Your task to perform on an android device: Check the weather Image 0: 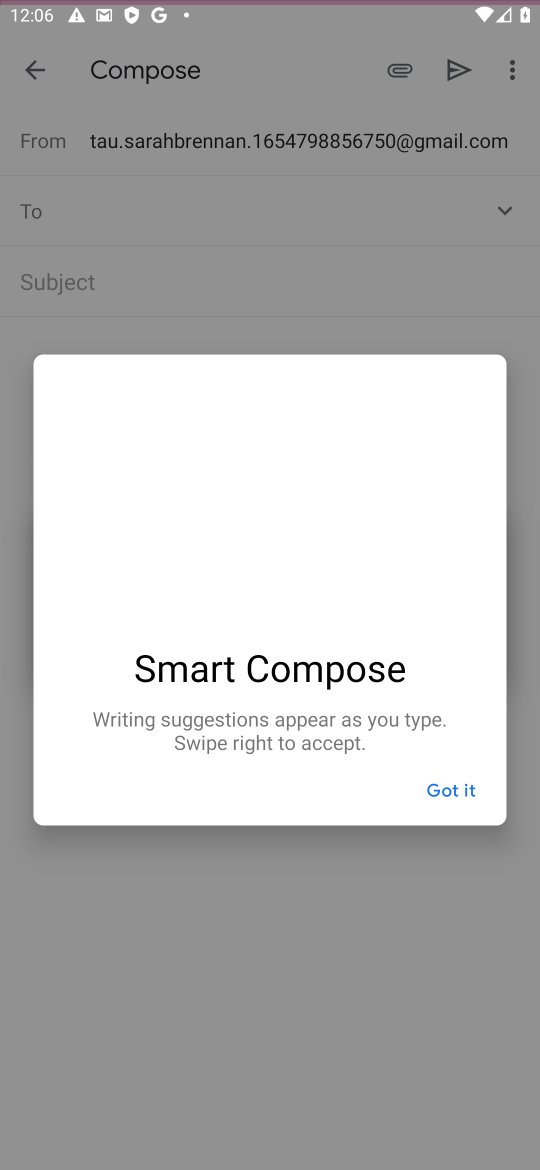
Step 0: press home button
Your task to perform on an android device: Check the weather Image 1: 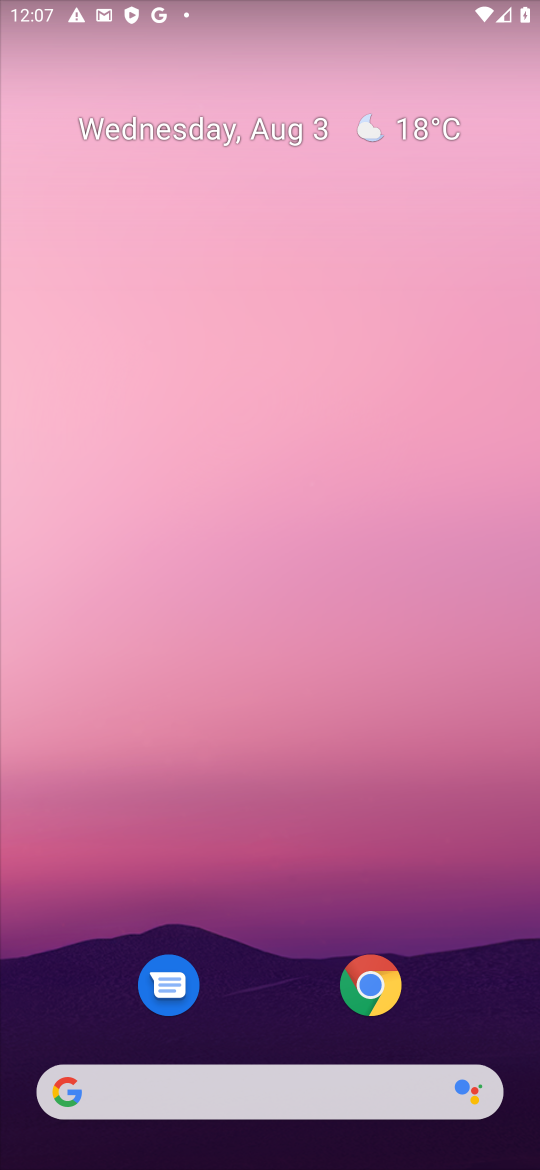
Step 1: drag from (305, 1030) to (288, 239)
Your task to perform on an android device: Check the weather Image 2: 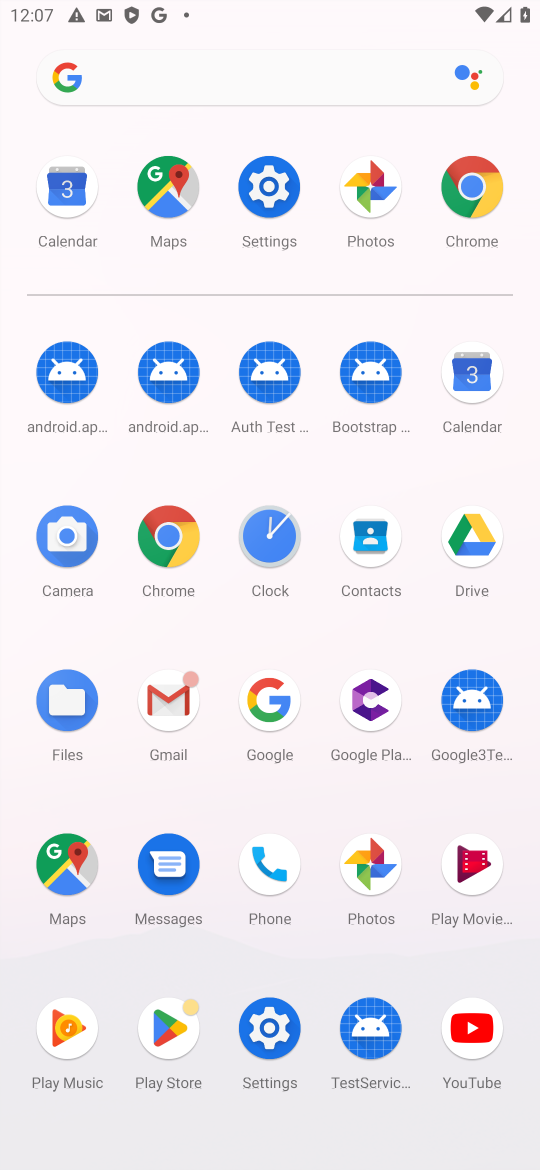
Step 2: click (204, 89)
Your task to perform on an android device: Check the weather Image 3: 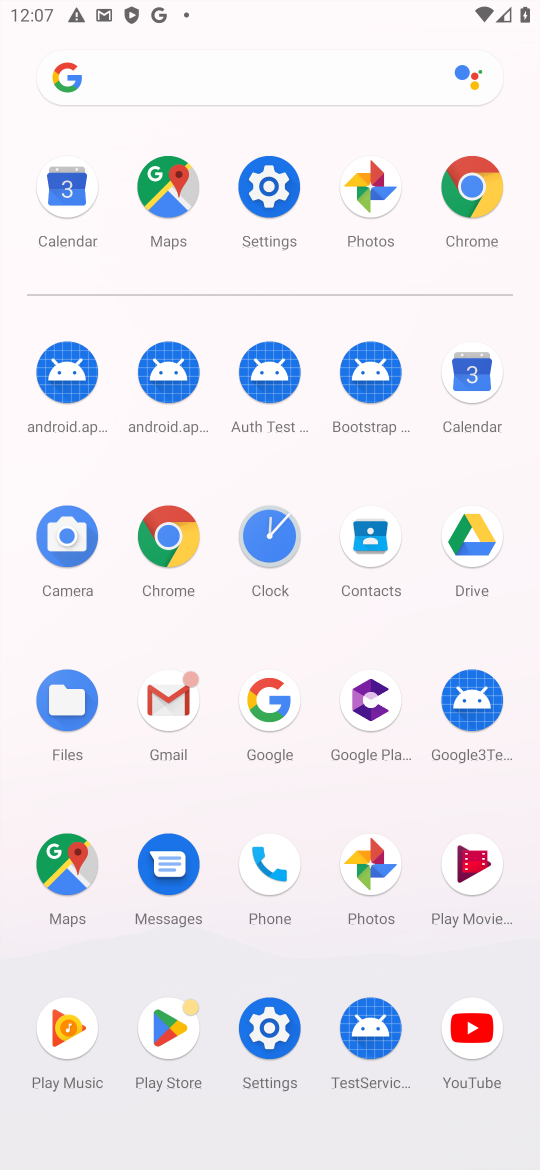
Step 3: click (204, 89)
Your task to perform on an android device: Check the weather Image 4: 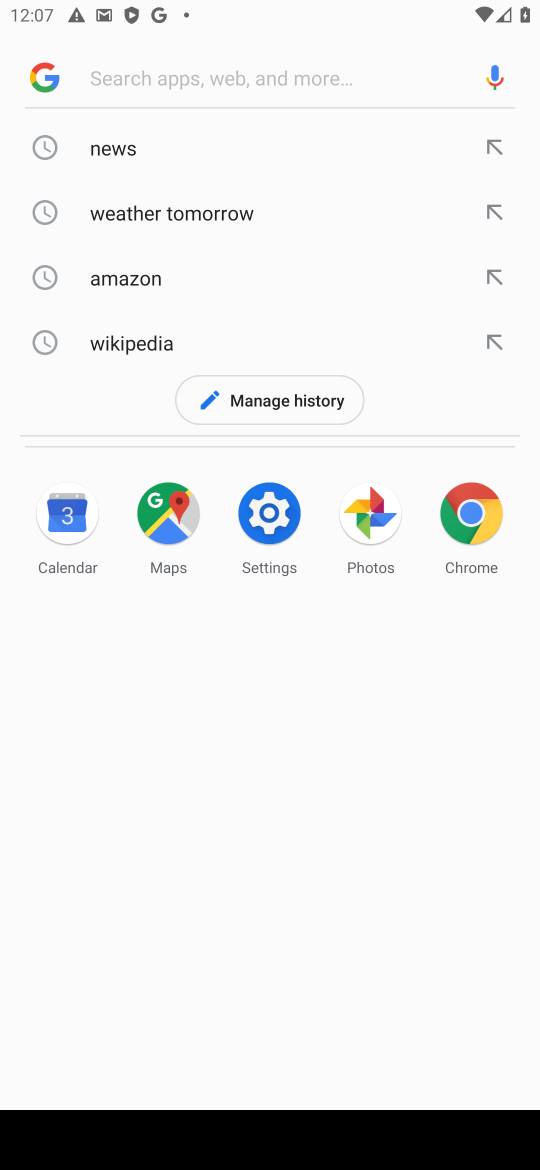
Step 4: click (166, 208)
Your task to perform on an android device: Check the weather Image 5: 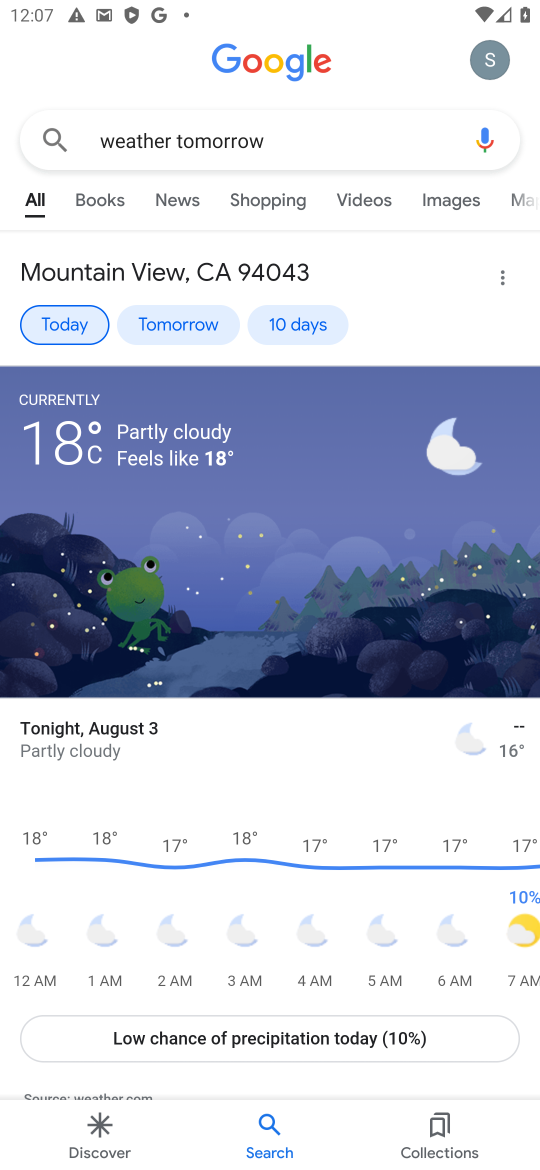
Step 5: click (164, 343)
Your task to perform on an android device: Check the weather Image 6: 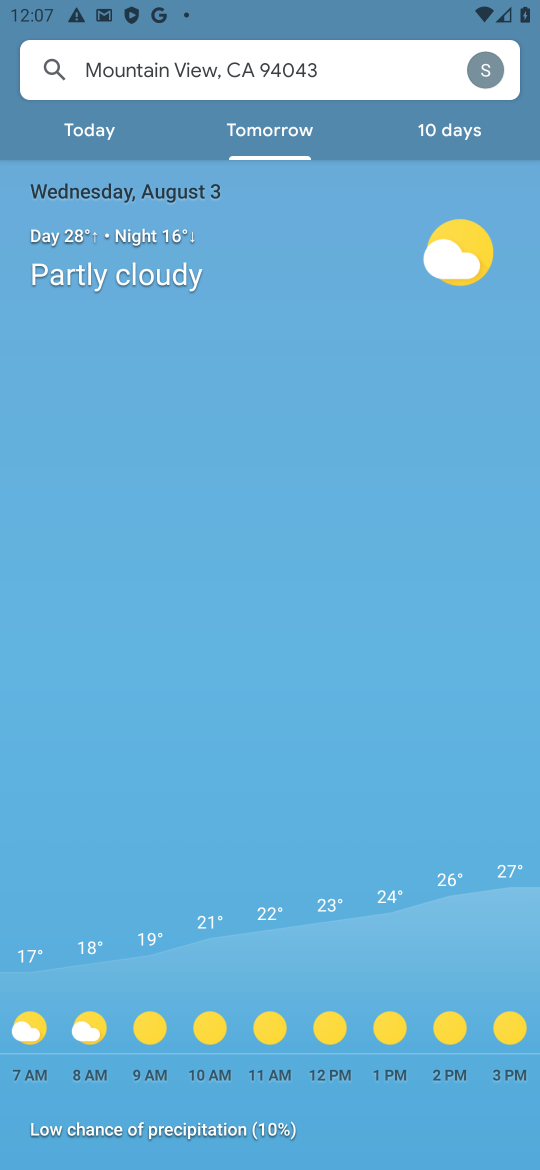
Step 6: task complete